Your task to perform on an android device: change alarm snooze length Image 0: 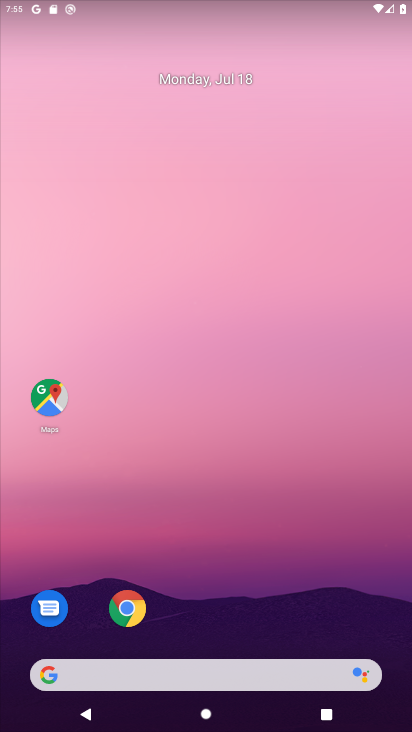
Step 0: drag from (182, 642) to (147, 36)
Your task to perform on an android device: change alarm snooze length Image 1: 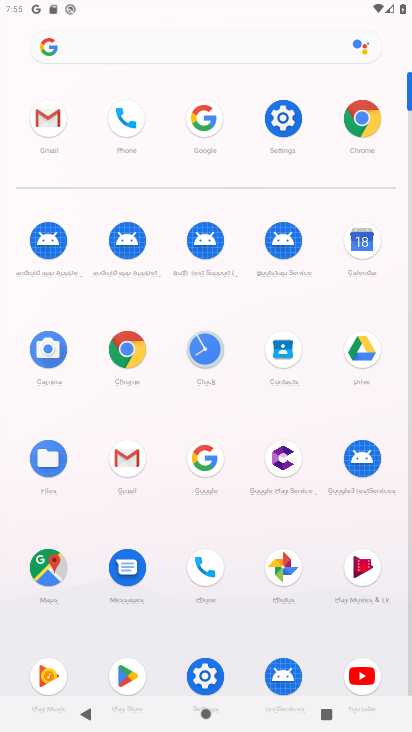
Step 1: click (211, 346)
Your task to perform on an android device: change alarm snooze length Image 2: 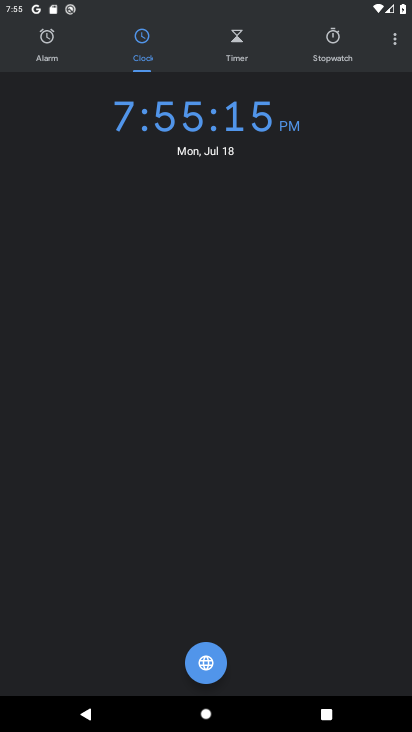
Step 2: drag from (396, 45) to (316, 83)
Your task to perform on an android device: change alarm snooze length Image 3: 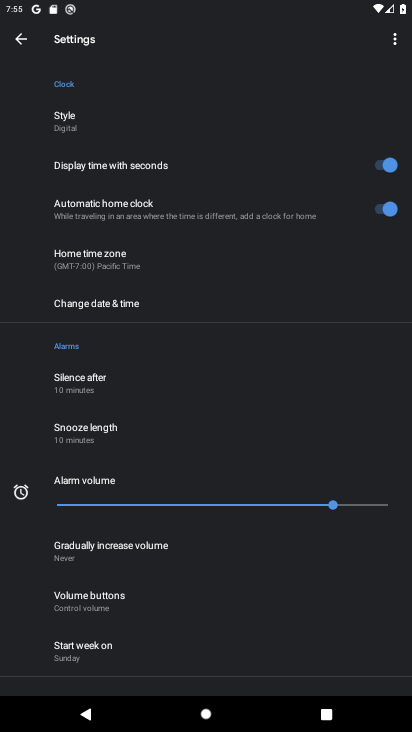
Step 3: click (74, 427)
Your task to perform on an android device: change alarm snooze length Image 4: 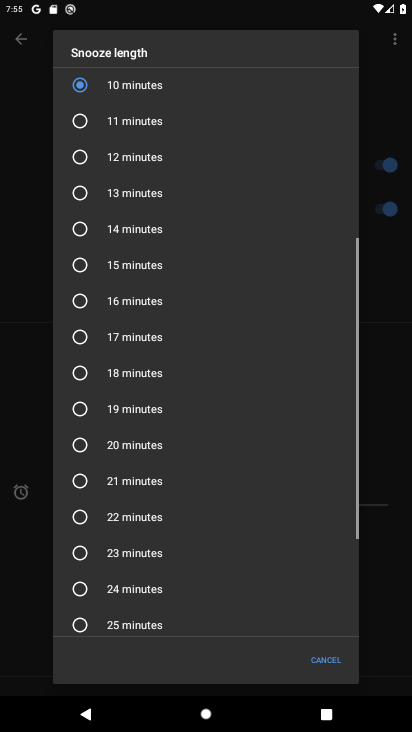
Step 4: click (87, 137)
Your task to perform on an android device: change alarm snooze length Image 5: 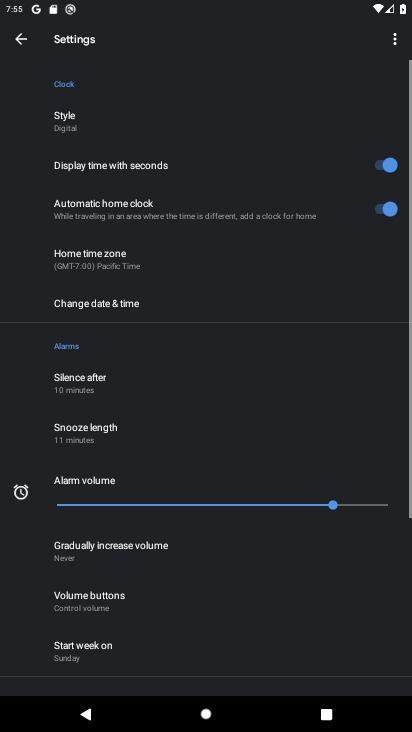
Step 5: task complete